Your task to perform on an android device: Search for razer blade on bestbuy.com, select the first entry, add it to the cart, then select checkout. Image 0: 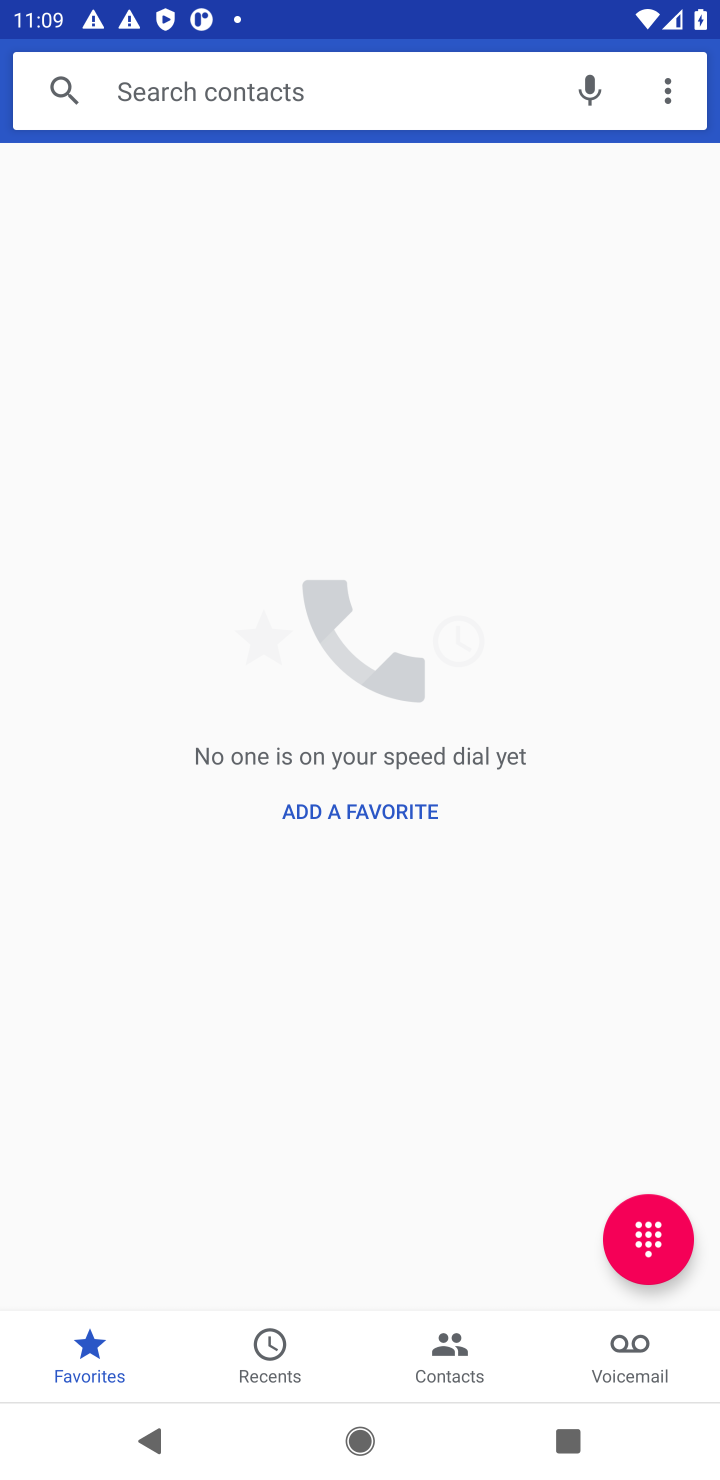
Step 0: press home button
Your task to perform on an android device: Search for razer blade on bestbuy.com, select the first entry, add it to the cart, then select checkout. Image 1: 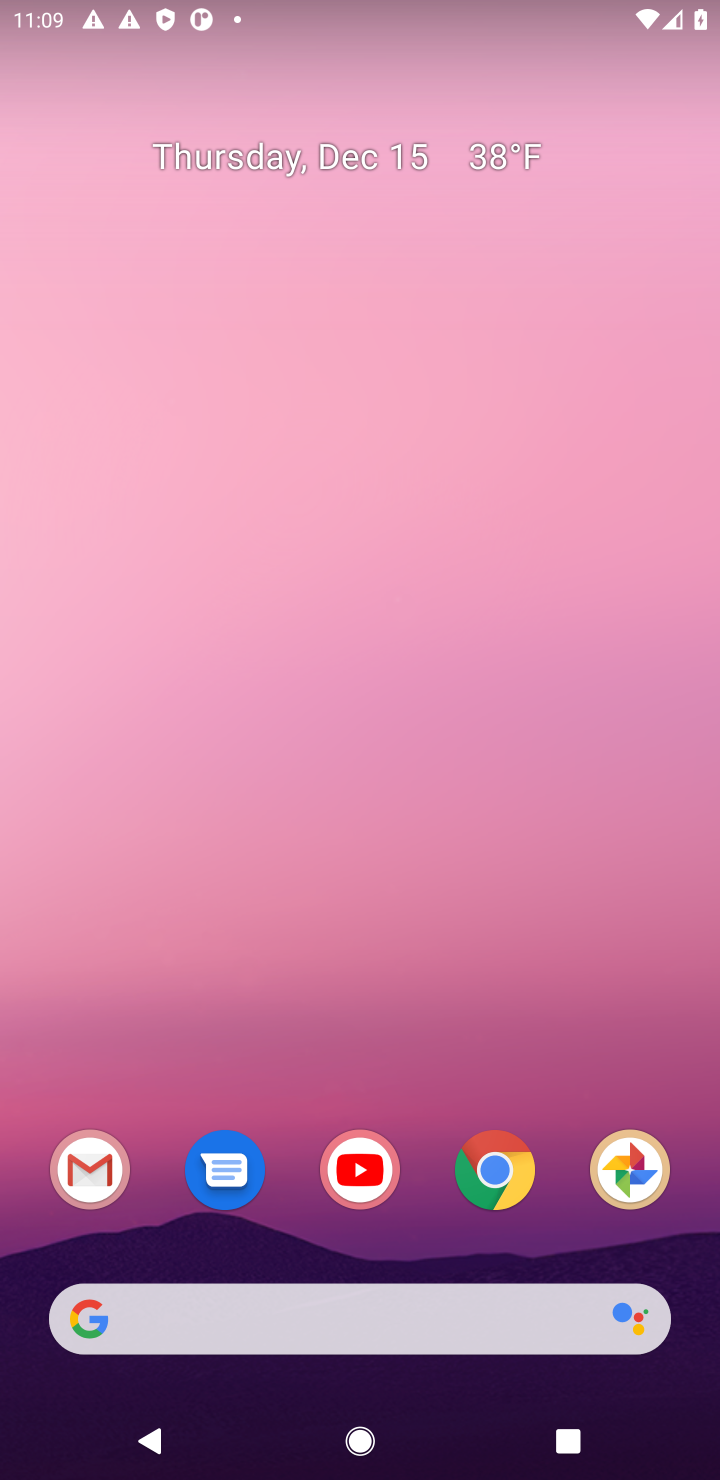
Step 1: click (504, 1175)
Your task to perform on an android device: Search for razer blade on bestbuy.com, select the first entry, add it to the cart, then select checkout. Image 2: 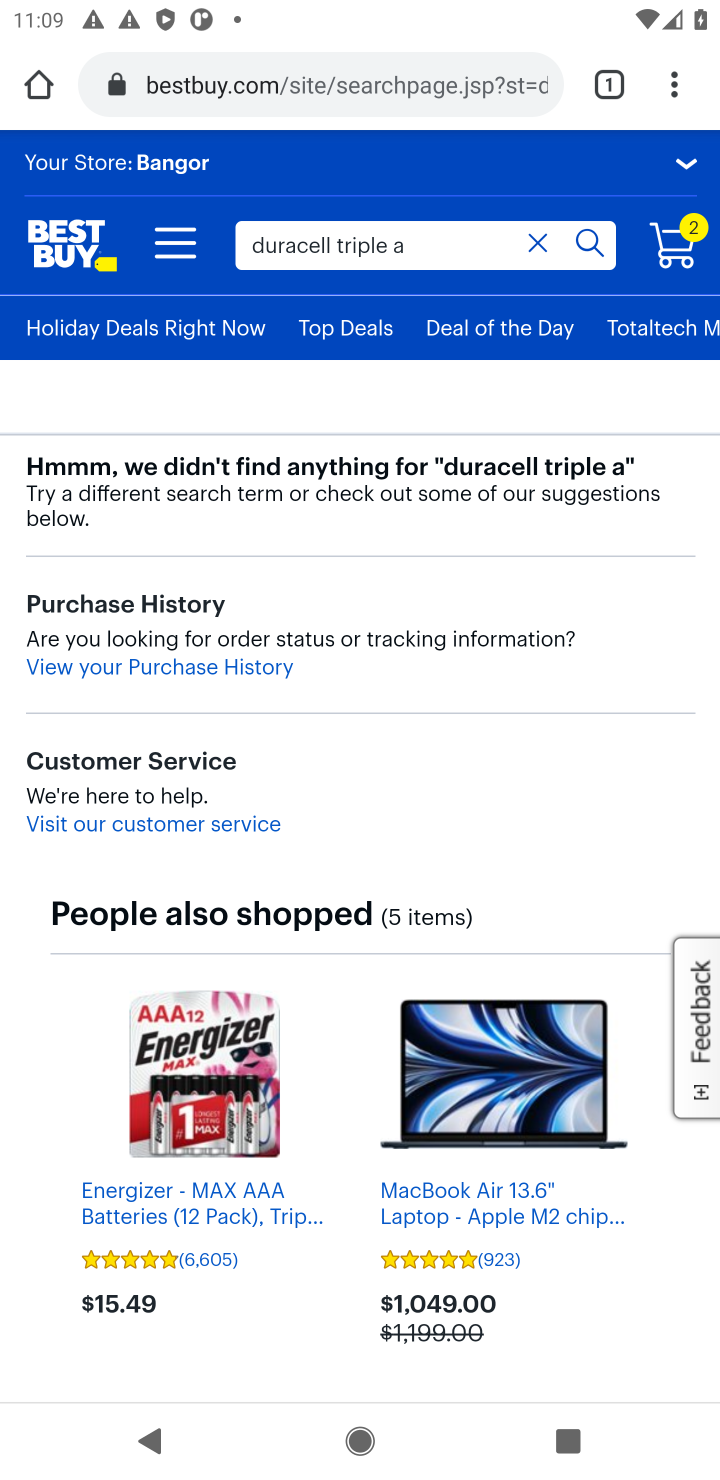
Step 2: click (534, 250)
Your task to perform on an android device: Search for razer blade on bestbuy.com, select the first entry, add it to the cart, then select checkout. Image 3: 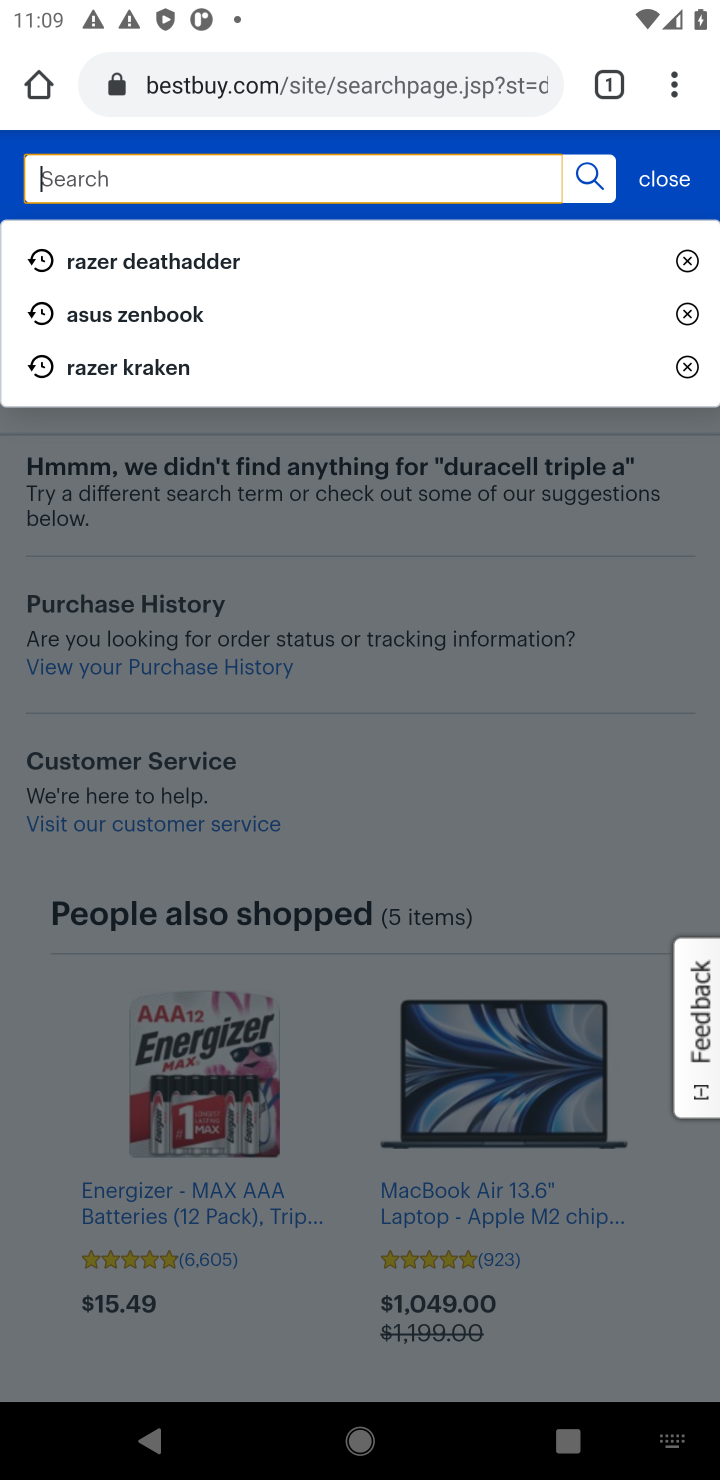
Step 3: type "razer blade "
Your task to perform on an android device: Search for razer blade on bestbuy.com, select the first entry, add it to the cart, then select checkout. Image 4: 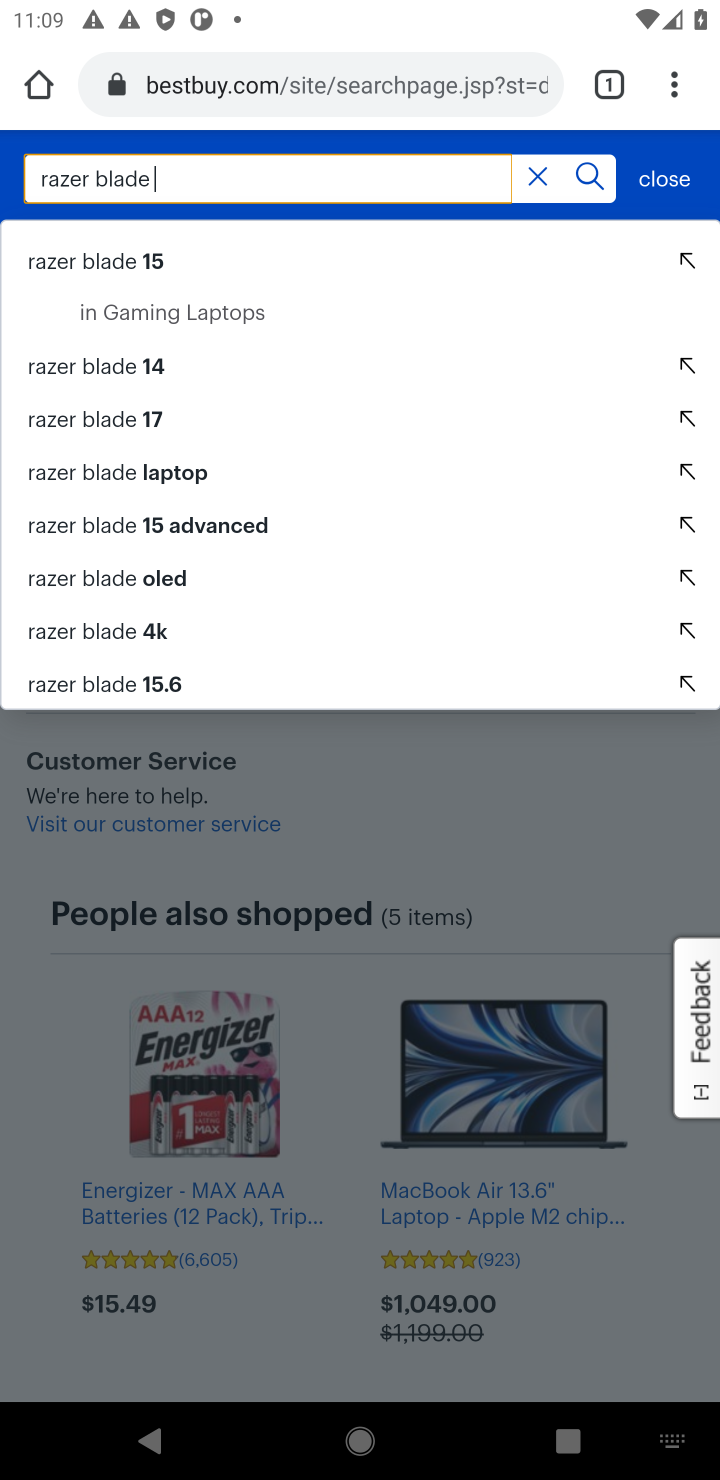
Step 4: click (113, 262)
Your task to perform on an android device: Search for razer blade on bestbuy.com, select the first entry, add it to the cart, then select checkout. Image 5: 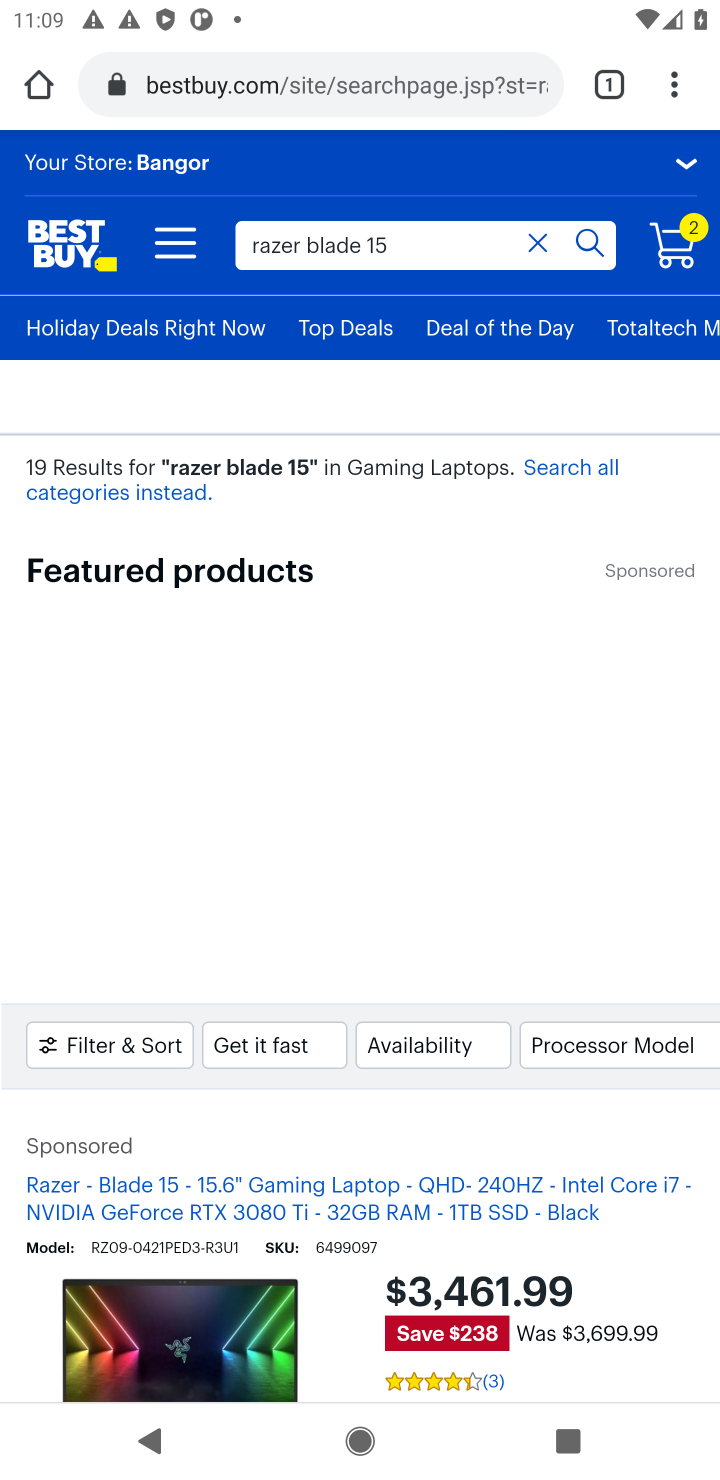
Step 5: drag from (266, 1013) to (289, 511)
Your task to perform on an android device: Search for razer blade on bestbuy.com, select the first entry, add it to the cart, then select checkout. Image 6: 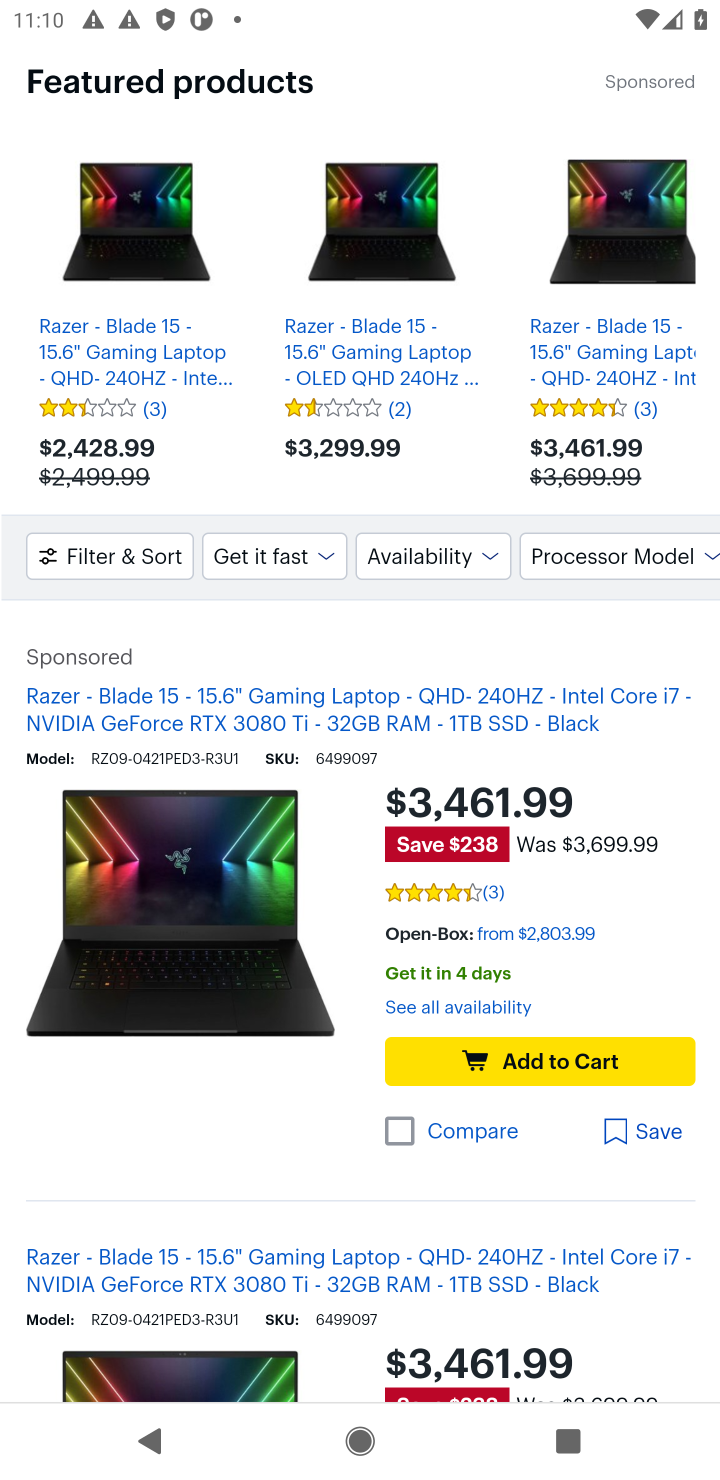
Step 6: click (506, 1057)
Your task to perform on an android device: Search for razer blade on bestbuy.com, select the first entry, add it to the cart, then select checkout. Image 7: 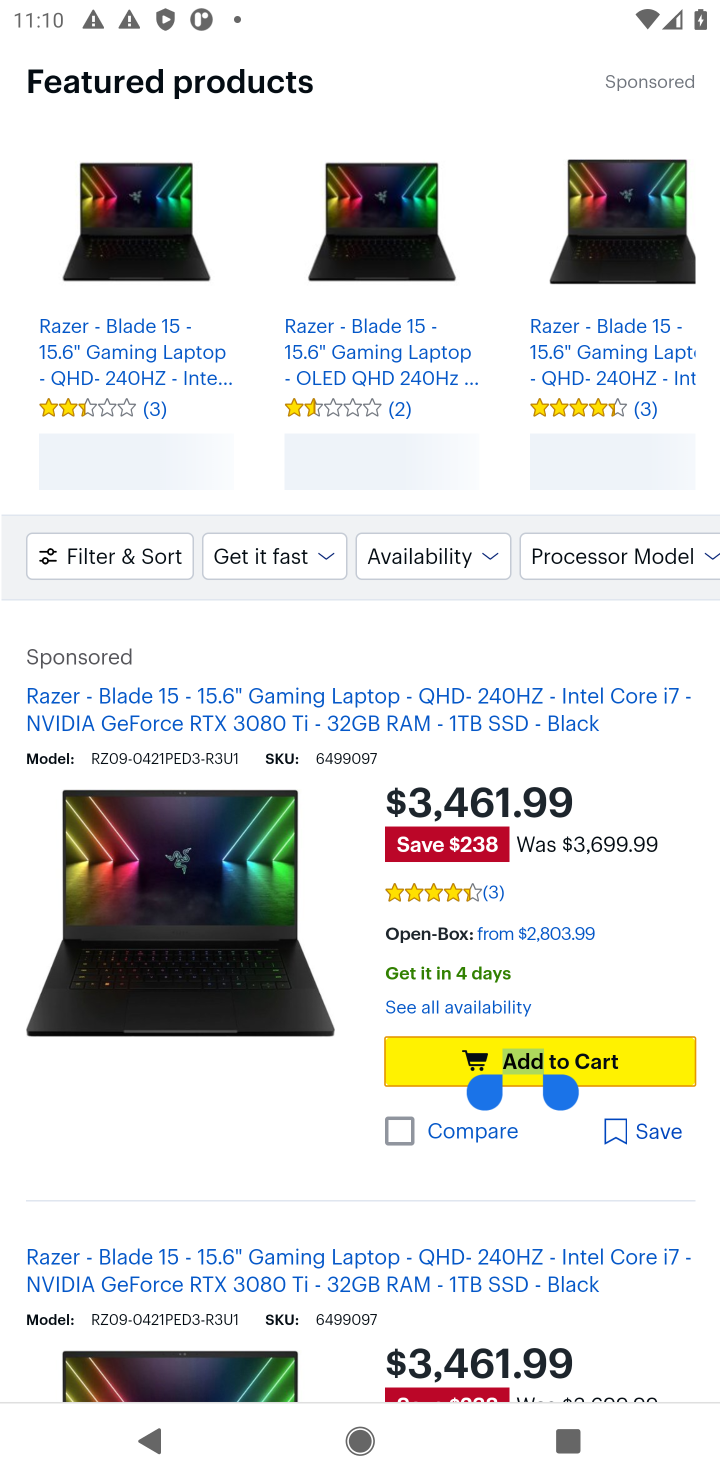
Step 7: click (592, 1055)
Your task to perform on an android device: Search for razer blade on bestbuy.com, select the first entry, add it to the cart, then select checkout. Image 8: 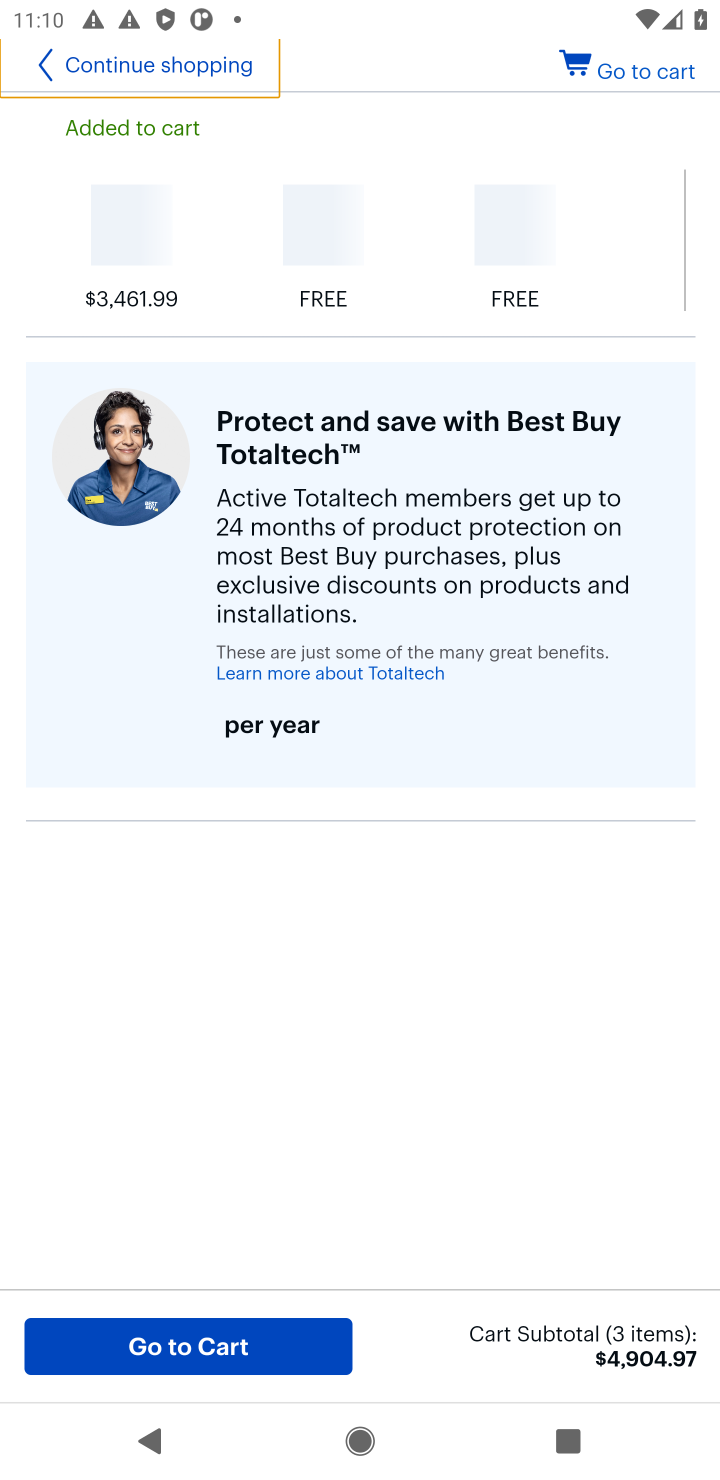
Step 8: click (657, 77)
Your task to perform on an android device: Search for razer blade on bestbuy.com, select the first entry, add it to the cart, then select checkout. Image 9: 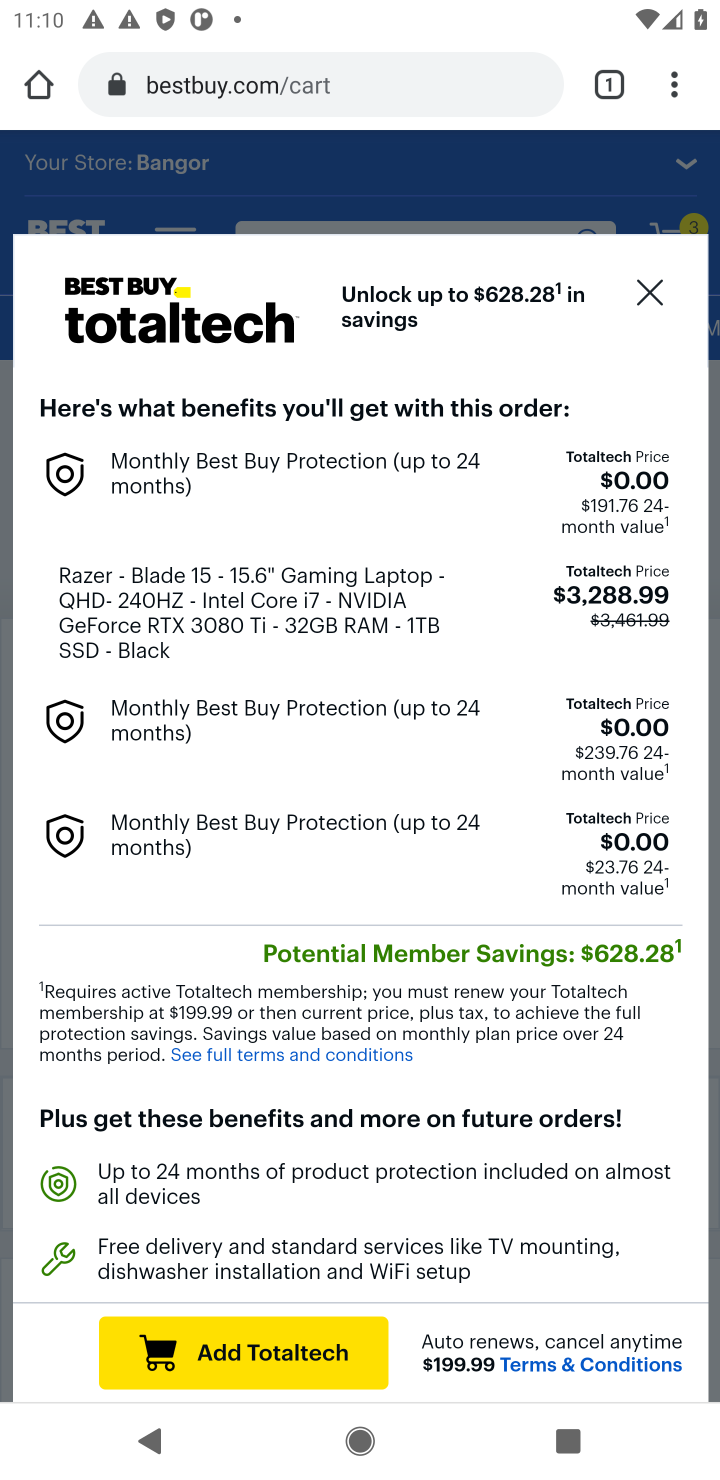
Step 9: click (339, 988)
Your task to perform on an android device: Search for razer blade on bestbuy.com, select the first entry, add it to the cart, then select checkout. Image 10: 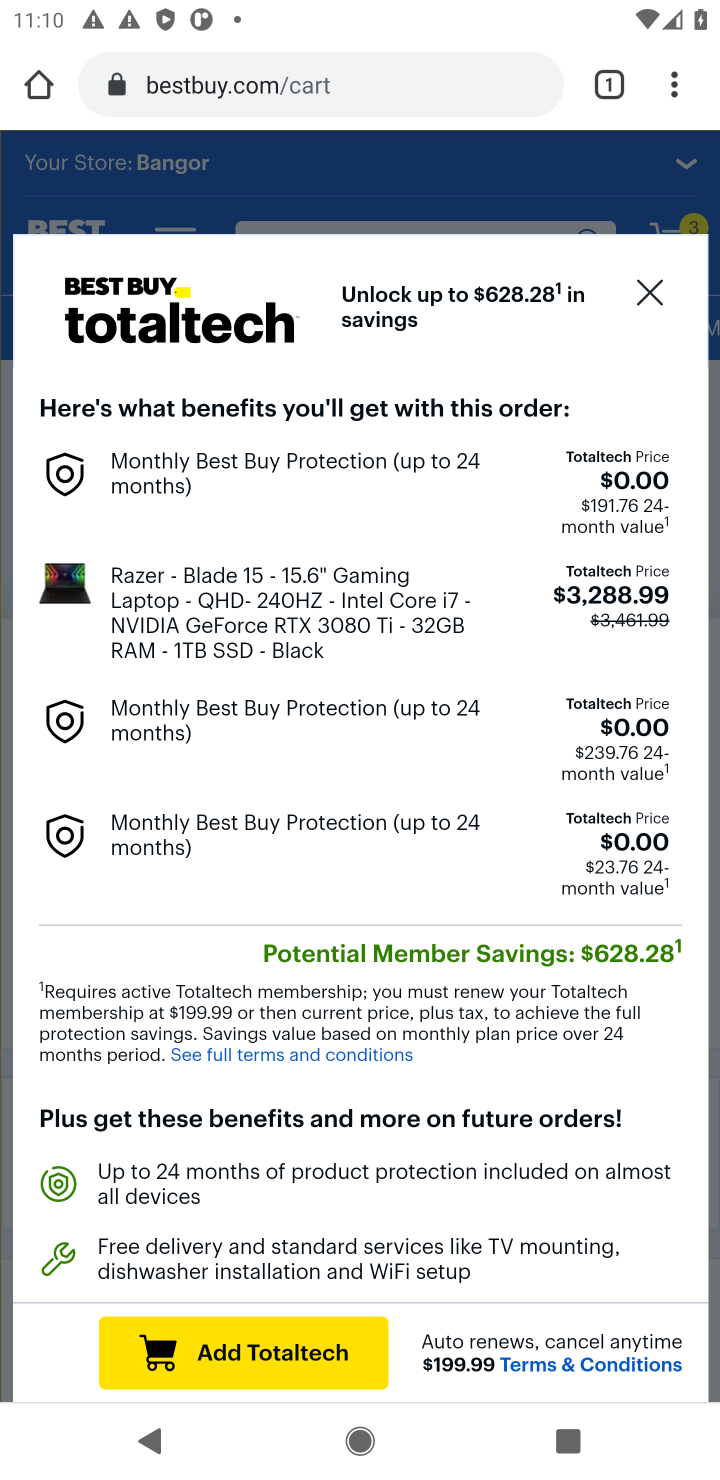
Step 10: click (659, 293)
Your task to perform on an android device: Search for razer blade on bestbuy.com, select the first entry, add it to the cart, then select checkout. Image 11: 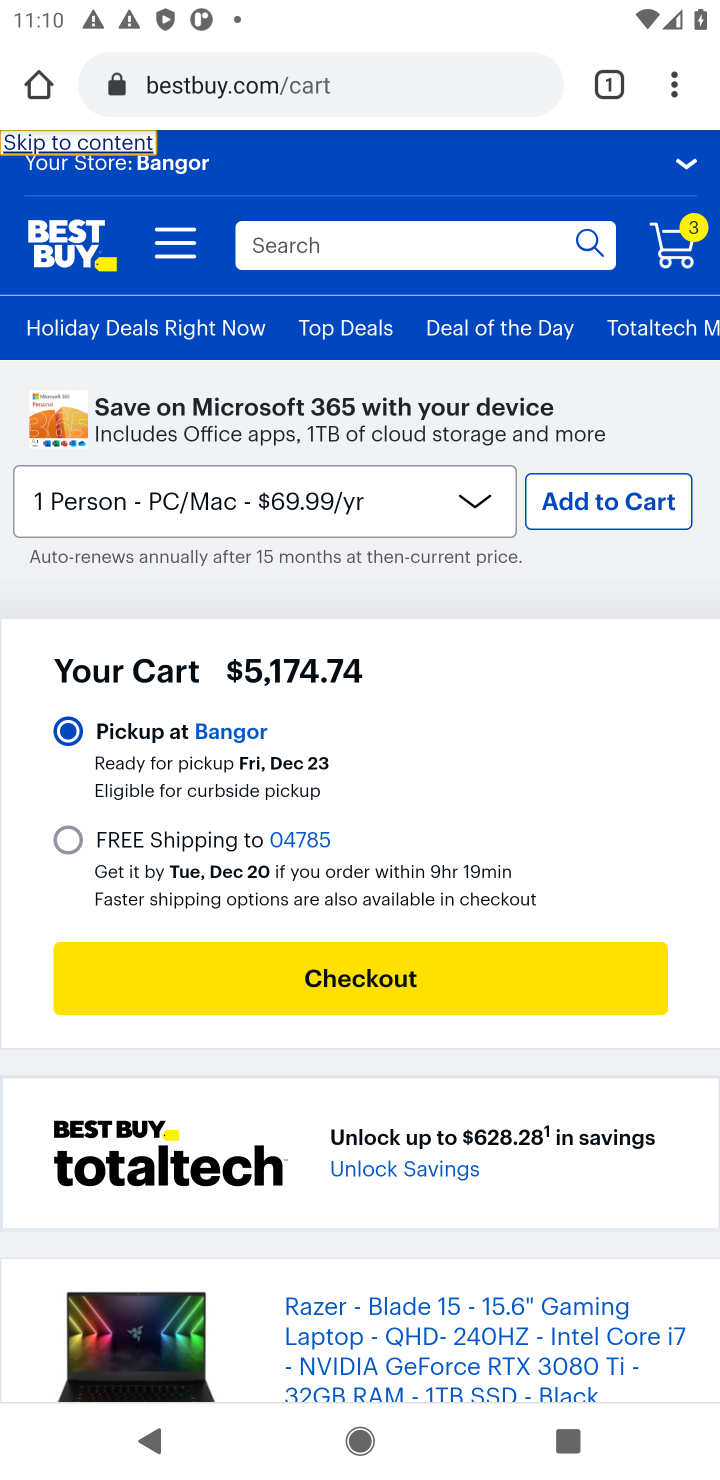
Step 11: click (329, 969)
Your task to perform on an android device: Search for razer blade on bestbuy.com, select the first entry, add it to the cart, then select checkout. Image 12: 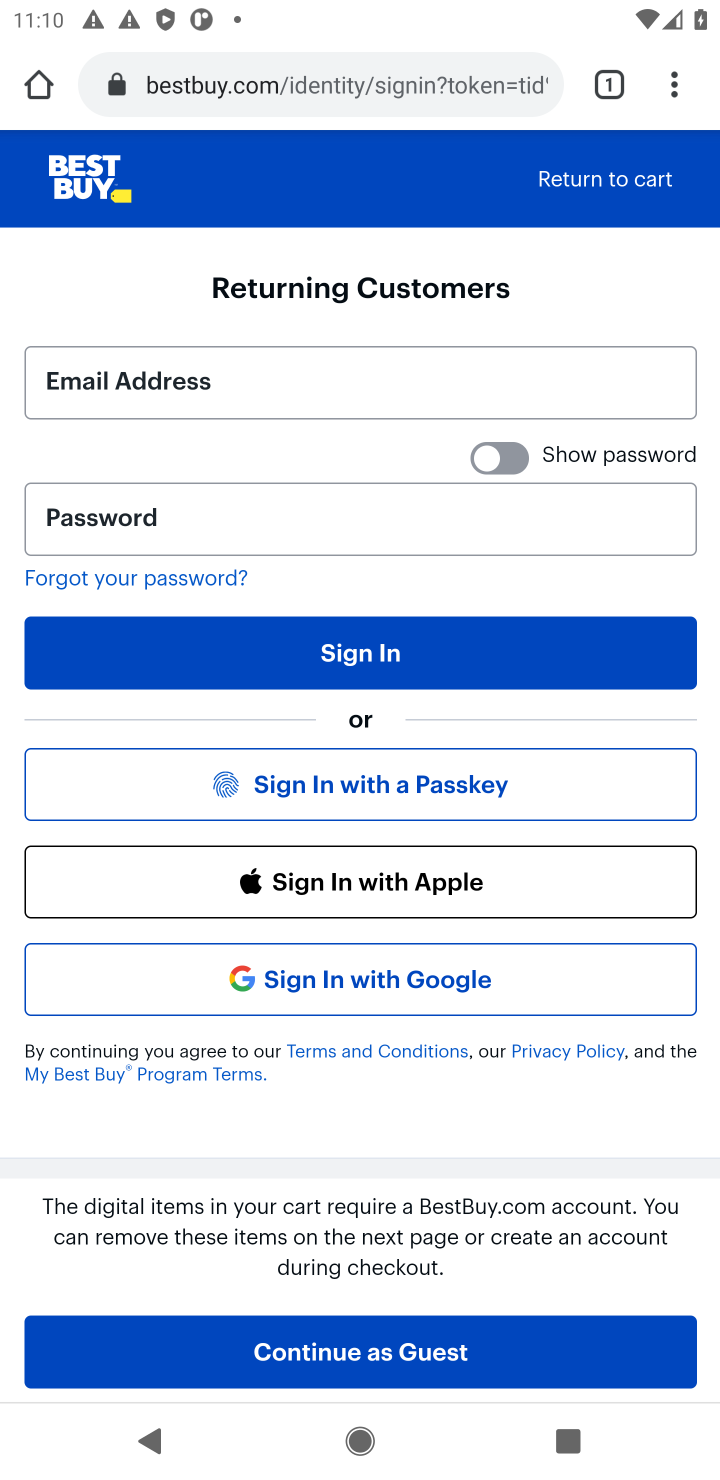
Step 12: task complete